Your task to perform on an android device: Turn off the flashlight Image 0: 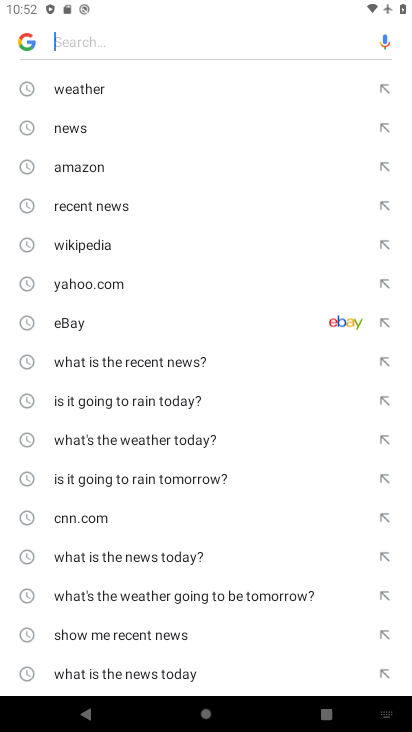
Step 0: press home button
Your task to perform on an android device: Turn off the flashlight Image 1: 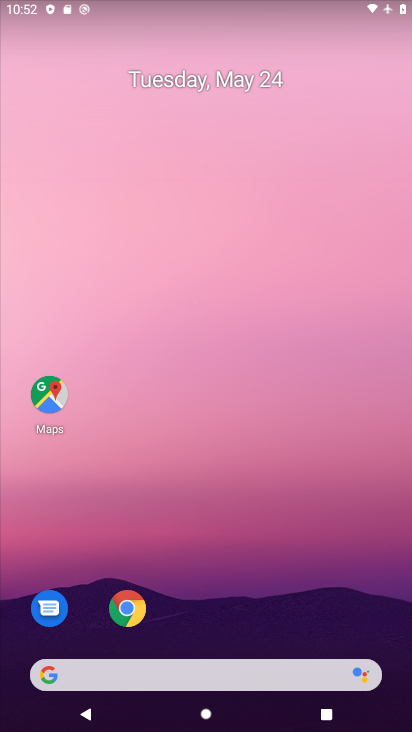
Step 1: drag from (273, 23) to (253, 445)
Your task to perform on an android device: Turn off the flashlight Image 2: 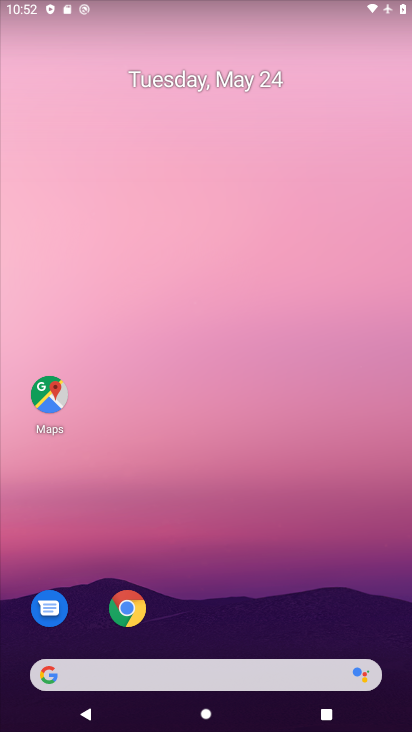
Step 2: drag from (237, 7) to (249, 429)
Your task to perform on an android device: Turn off the flashlight Image 3: 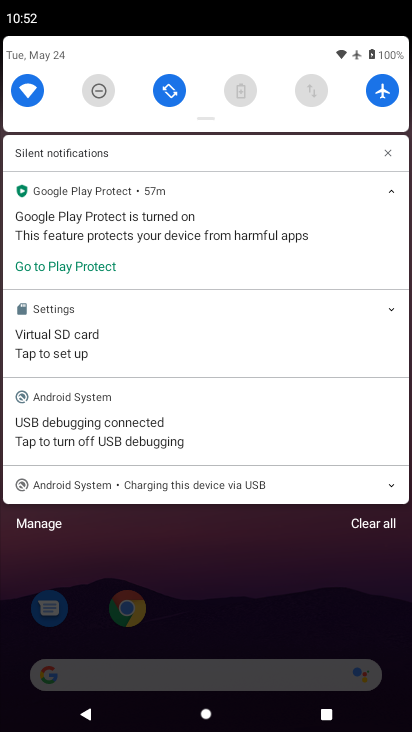
Step 3: drag from (195, 116) to (227, 483)
Your task to perform on an android device: Turn off the flashlight Image 4: 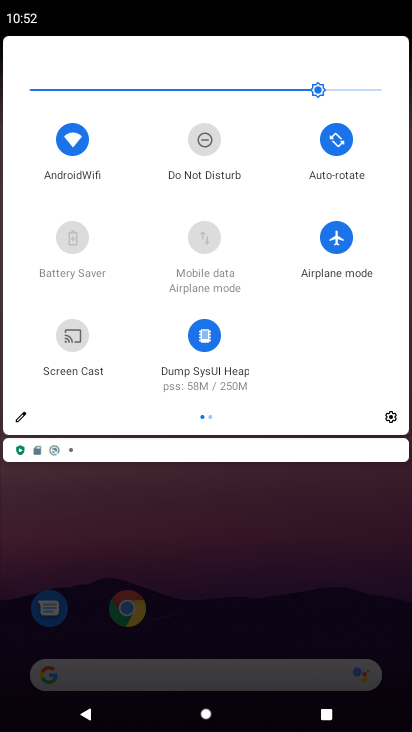
Step 4: click (19, 414)
Your task to perform on an android device: Turn off the flashlight Image 5: 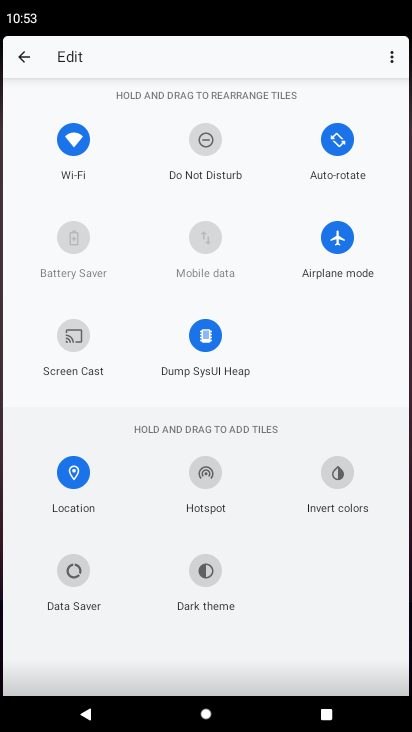
Step 5: task complete